Your task to perform on an android device: View the shopping cart on ebay. Search for razer blackwidow on ebay, select the first entry, add it to the cart, then select checkout. Image 0: 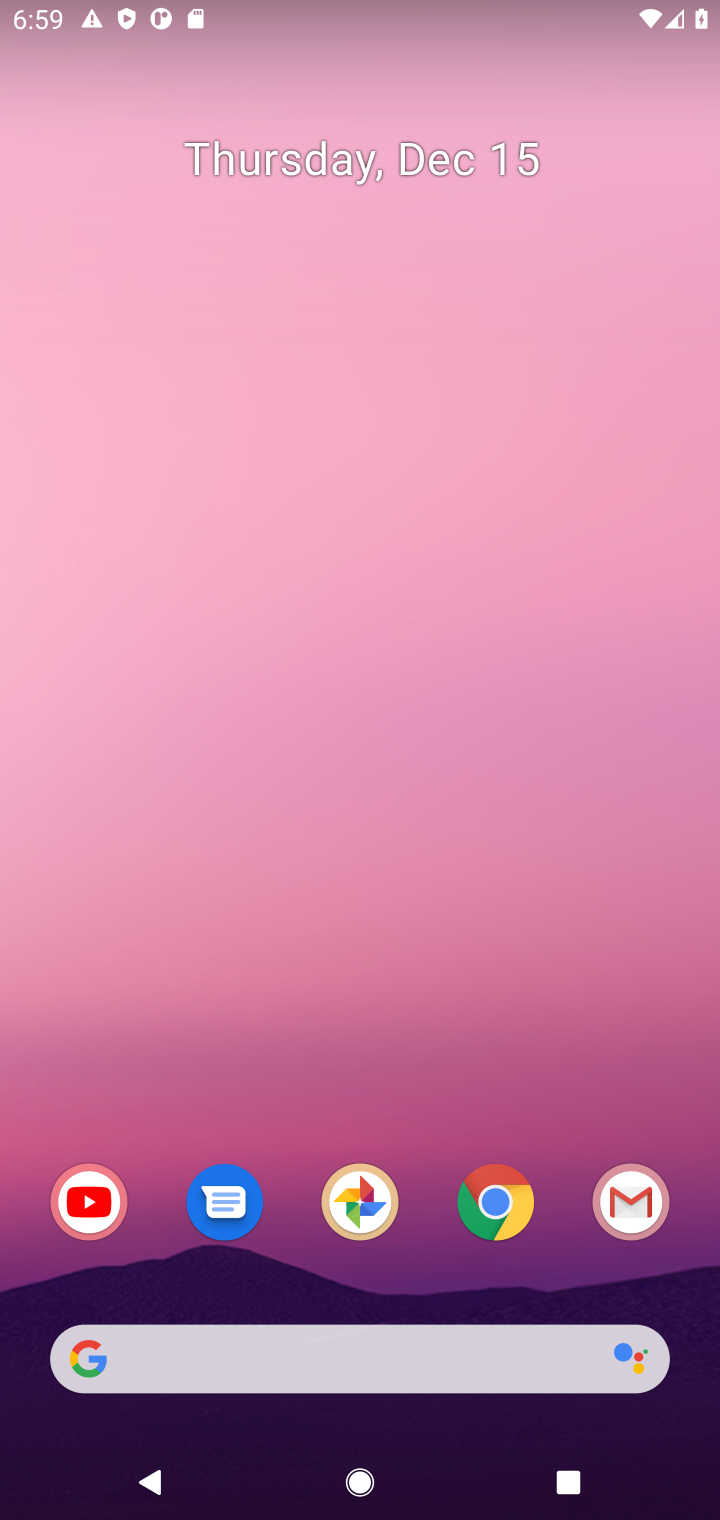
Step 0: click (501, 1198)
Your task to perform on an android device: View the shopping cart on ebay. Search for razer blackwidow on ebay, select the first entry, add it to the cart, then select checkout. Image 1: 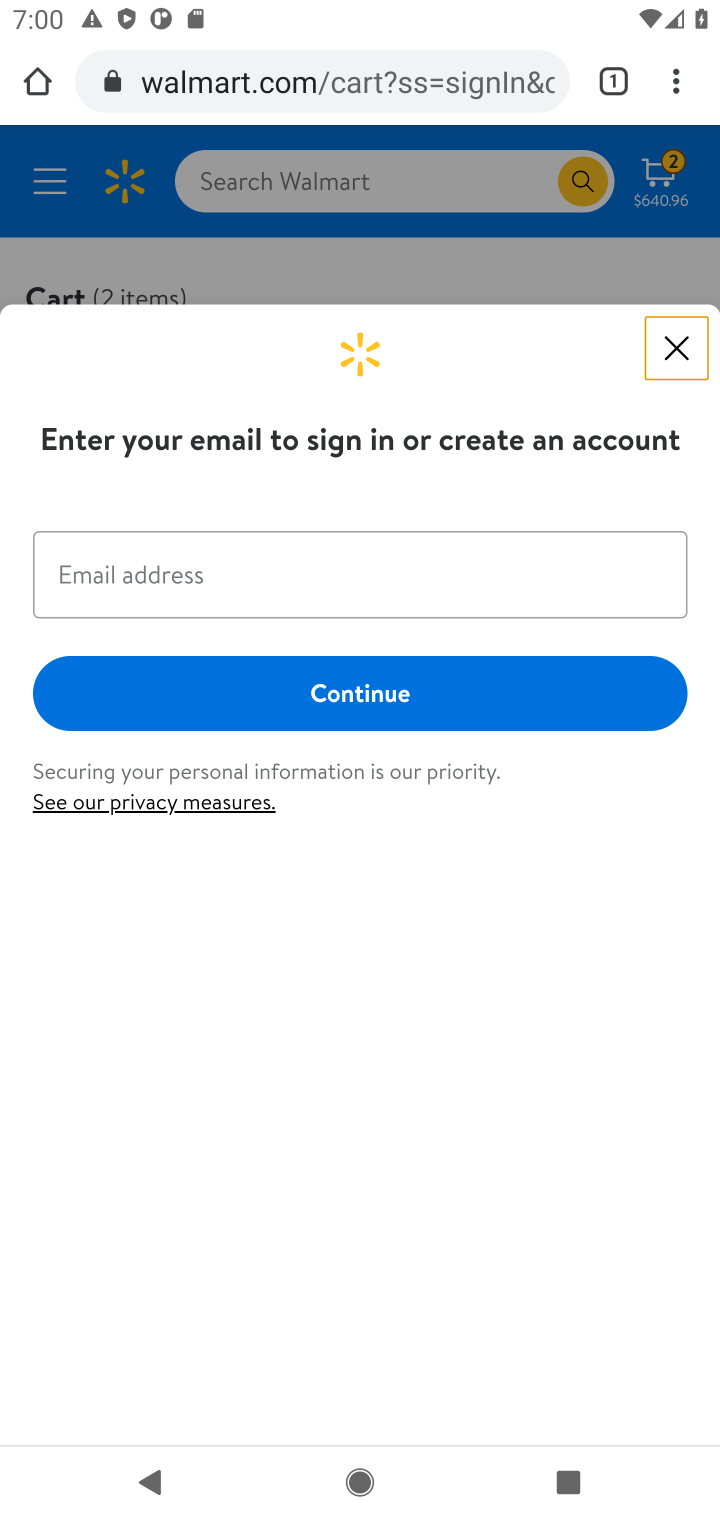
Step 1: click (245, 91)
Your task to perform on an android device: View the shopping cart on ebay. Search for razer blackwidow on ebay, select the first entry, add it to the cart, then select checkout. Image 2: 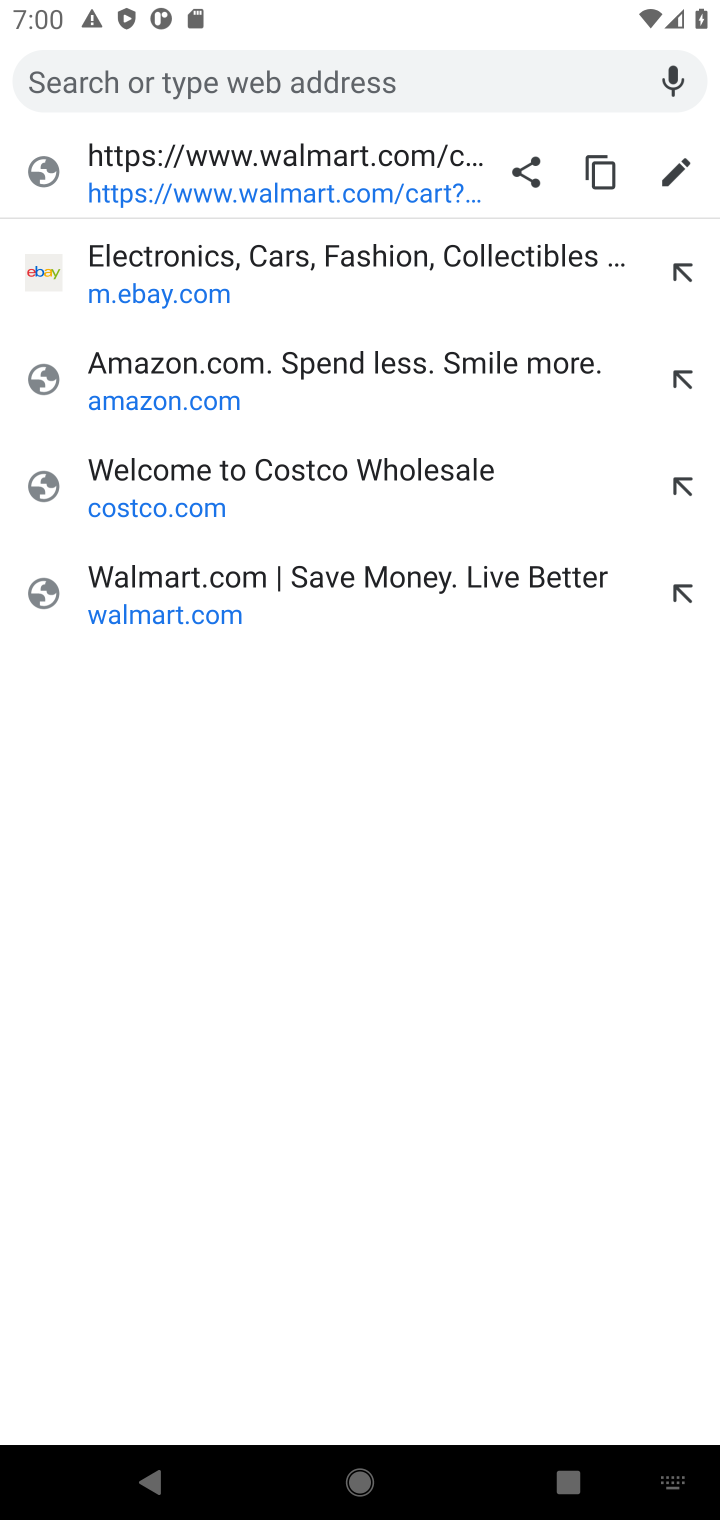
Step 2: click (169, 295)
Your task to perform on an android device: View the shopping cart on ebay. Search for razer blackwidow on ebay, select the first entry, add it to the cart, then select checkout. Image 3: 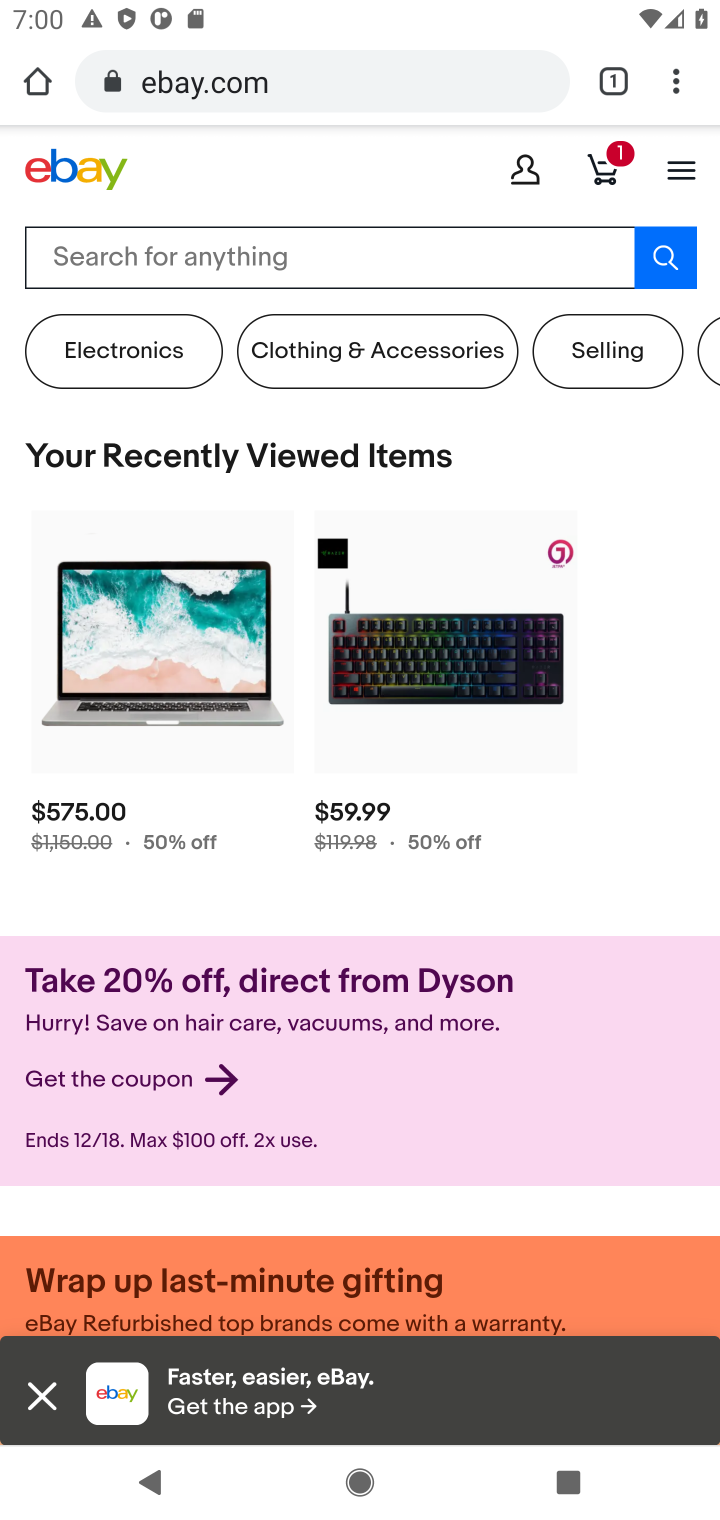
Step 3: click (603, 171)
Your task to perform on an android device: View the shopping cart on ebay. Search for razer blackwidow on ebay, select the first entry, add it to the cart, then select checkout. Image 4: 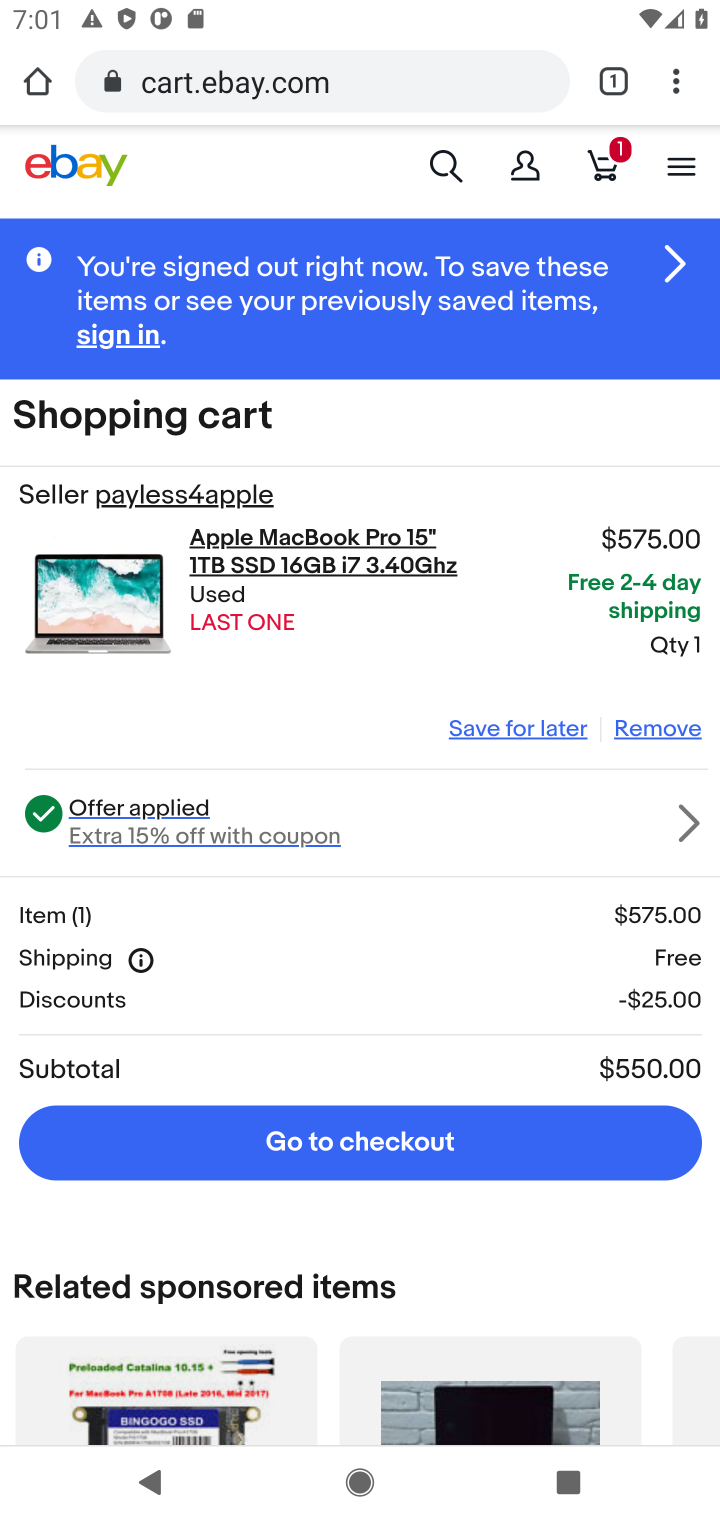
Step 4: click (433, 163)
Your task to perform on an android device: View the shopping cart on ebay. Search for razer blackwidow on ebay, select the first entry, add it to the cart, then select checkout. Image 5: 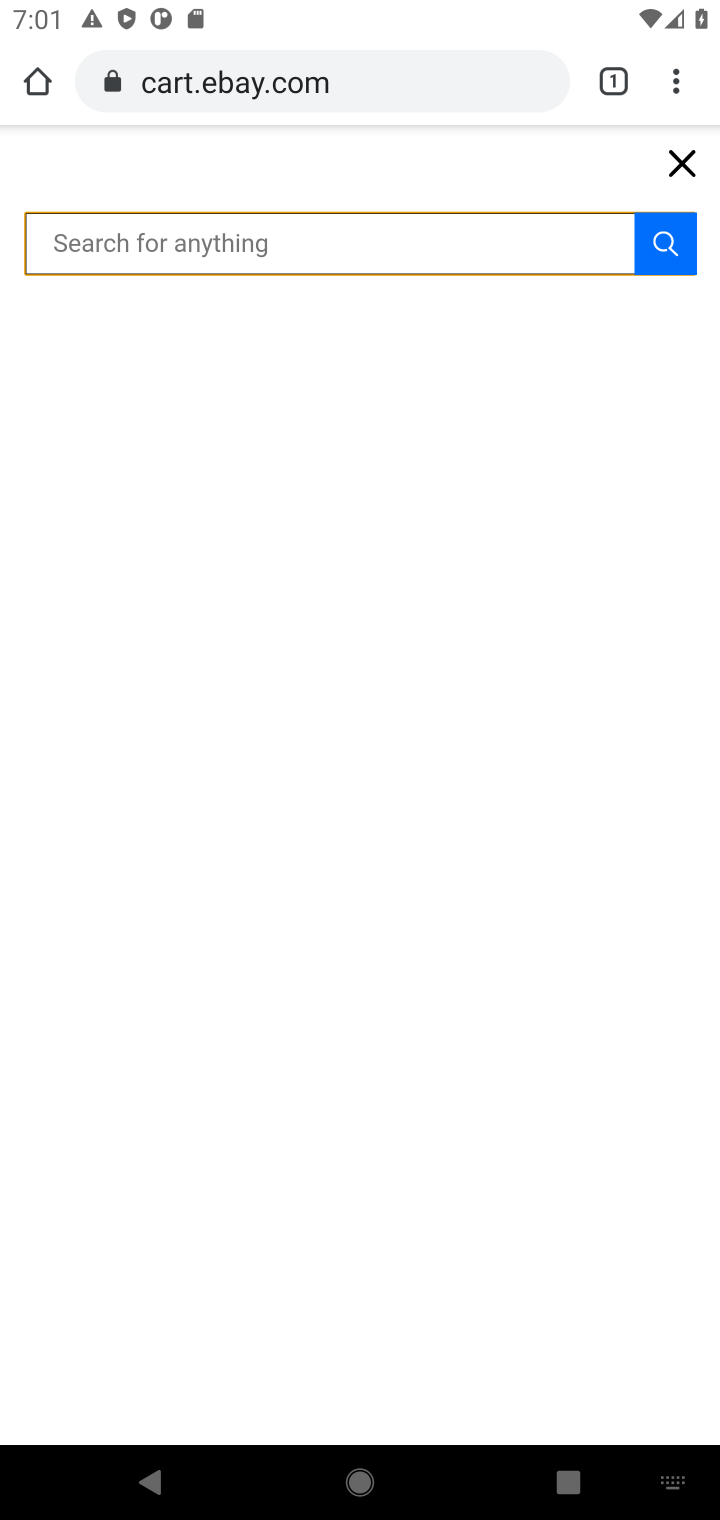
Step 5: type "razer blackwidow"
Your task to perform on an android device: View the shopping cart on ebay. Search for razer blackwidow on ebay, select the first entry, add it to the cart, then select checkout. Image 6: 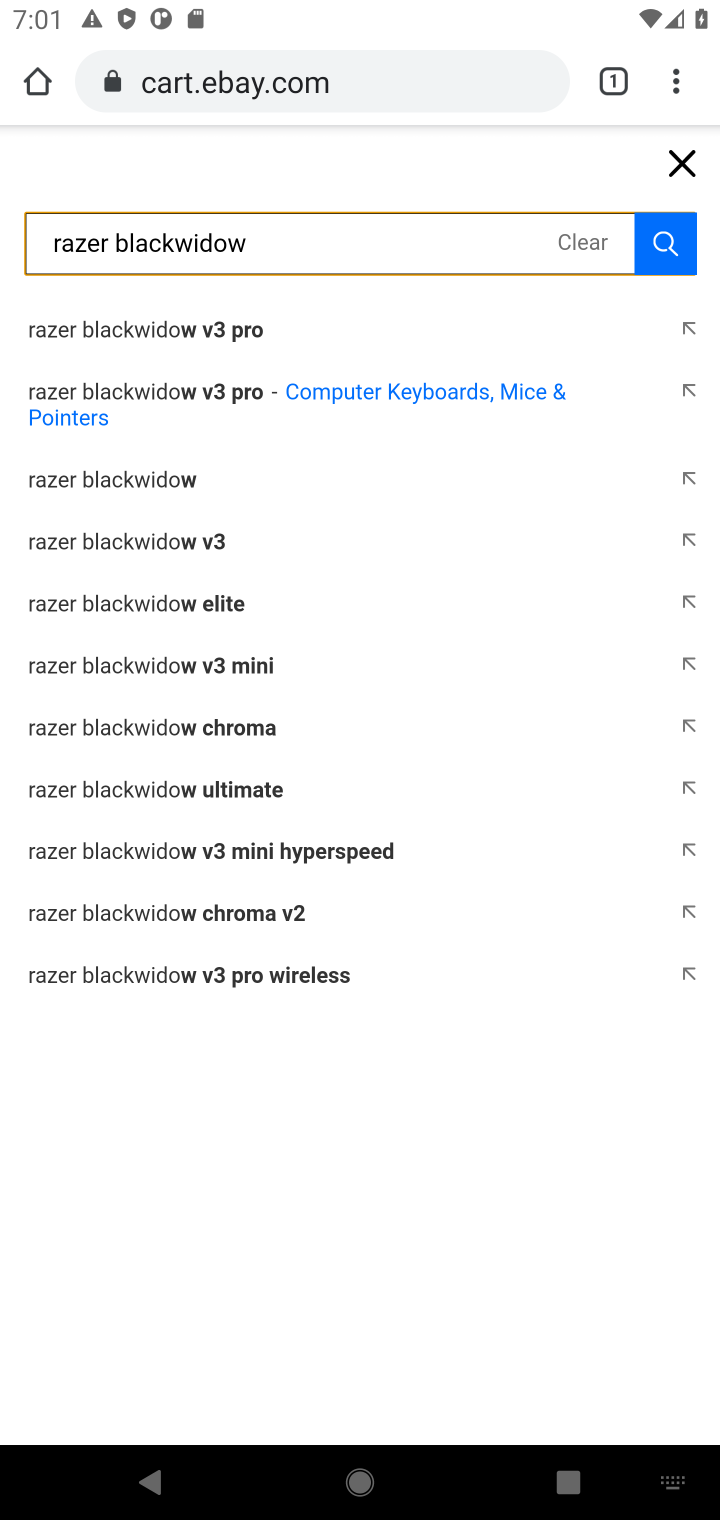
Step 6: click (178, 493)
Your task to perform on an android device: View the shopping cart on ebay. Search for razer blackwidow on ebay, select the first entry, add it to the cart, then select checkout. Image 7: 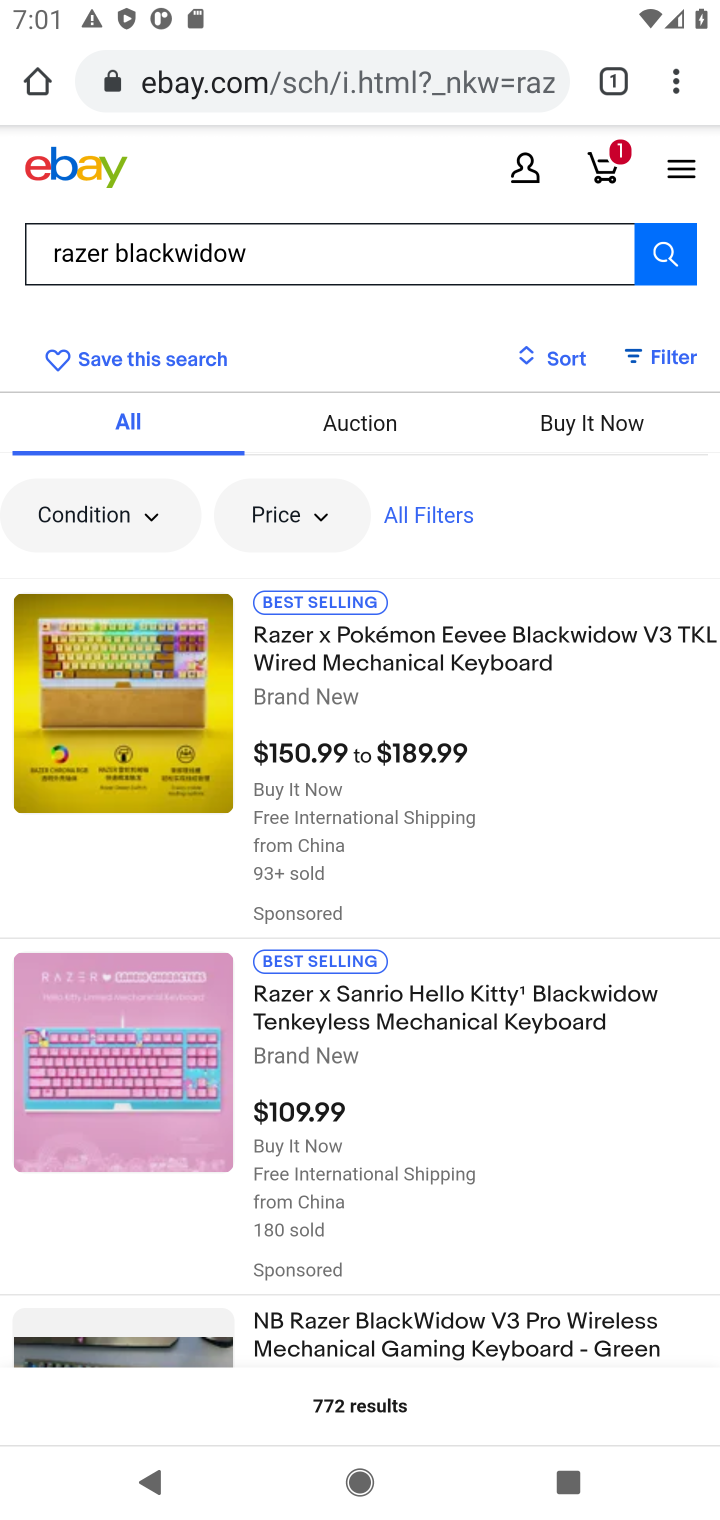
Step 7: click (326, 667)
Your task to perform on an android device: View the shopping cart on ebay. Search for razer blackwidow on ebay, select the first entry, add it to the cart, then select checkout. Image 8: 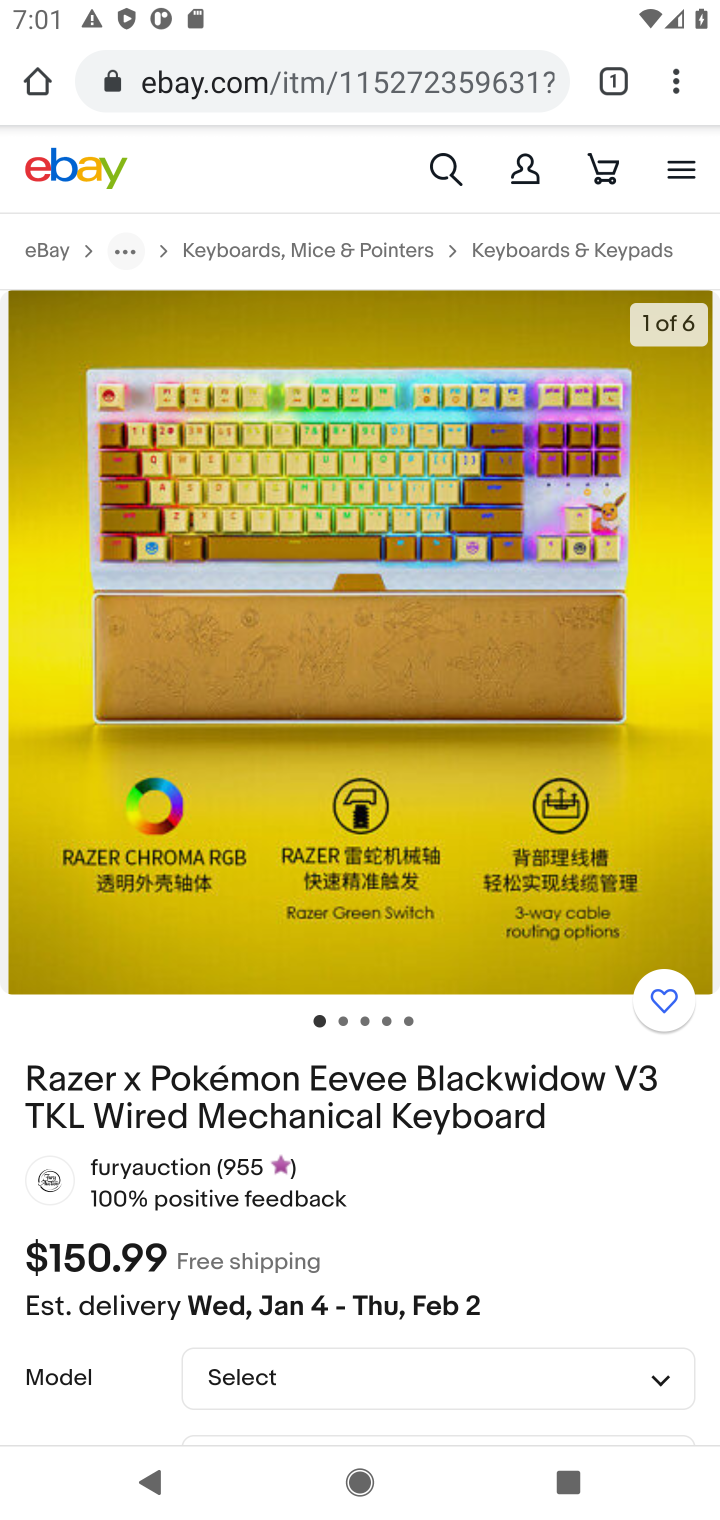
Step 8: drag from (306, 1135) to (315, 643)
Your task to perform on an android device: View the shopping cart on ebay. Search for razer blackwidow on ebay, select the first entry, add it to the cart, then select checkout. Image 9: 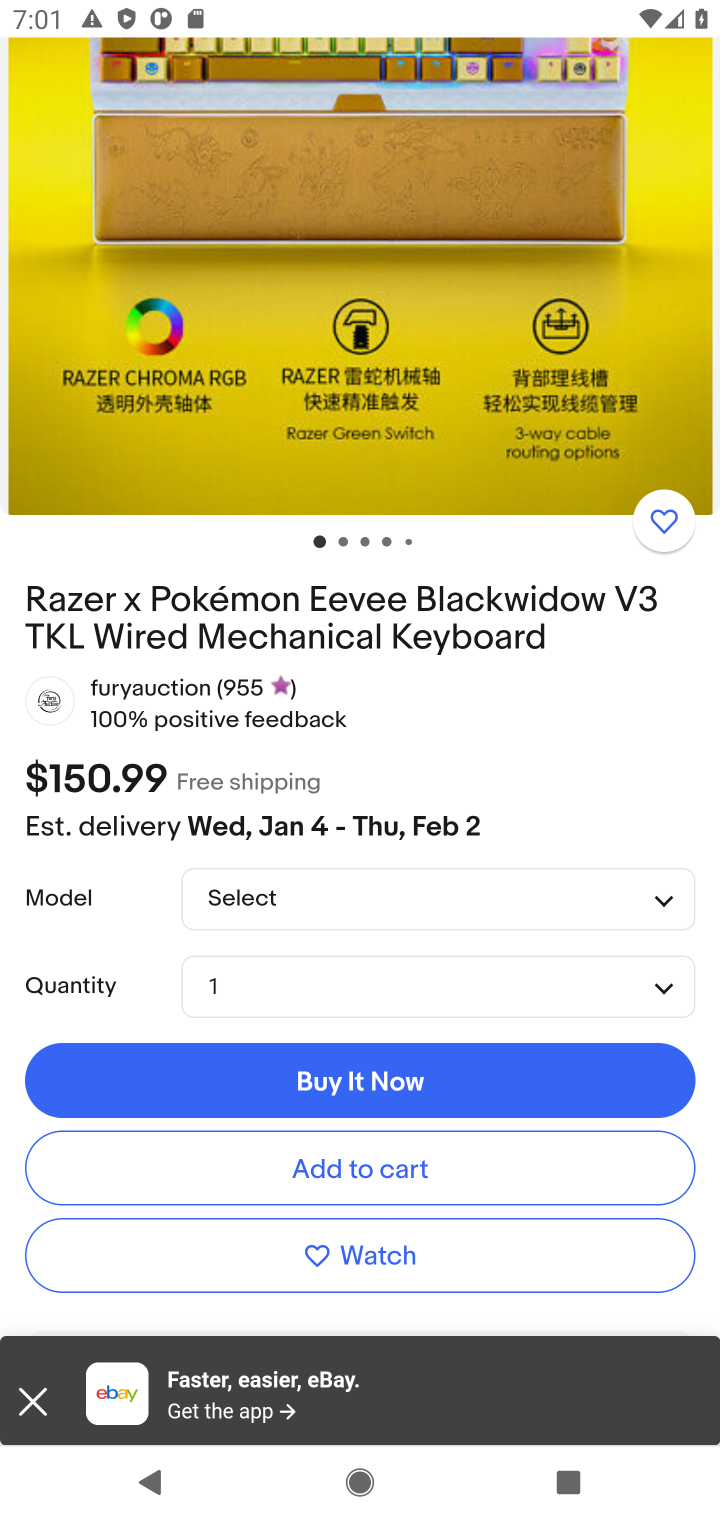
Step 9: click (357, 1163)
Your task to perform on an android device: View the shopping cart on ebay. Search for razer blackwidow on ebay, select the first entry, add it to the cart, then select checkout. Image 10: 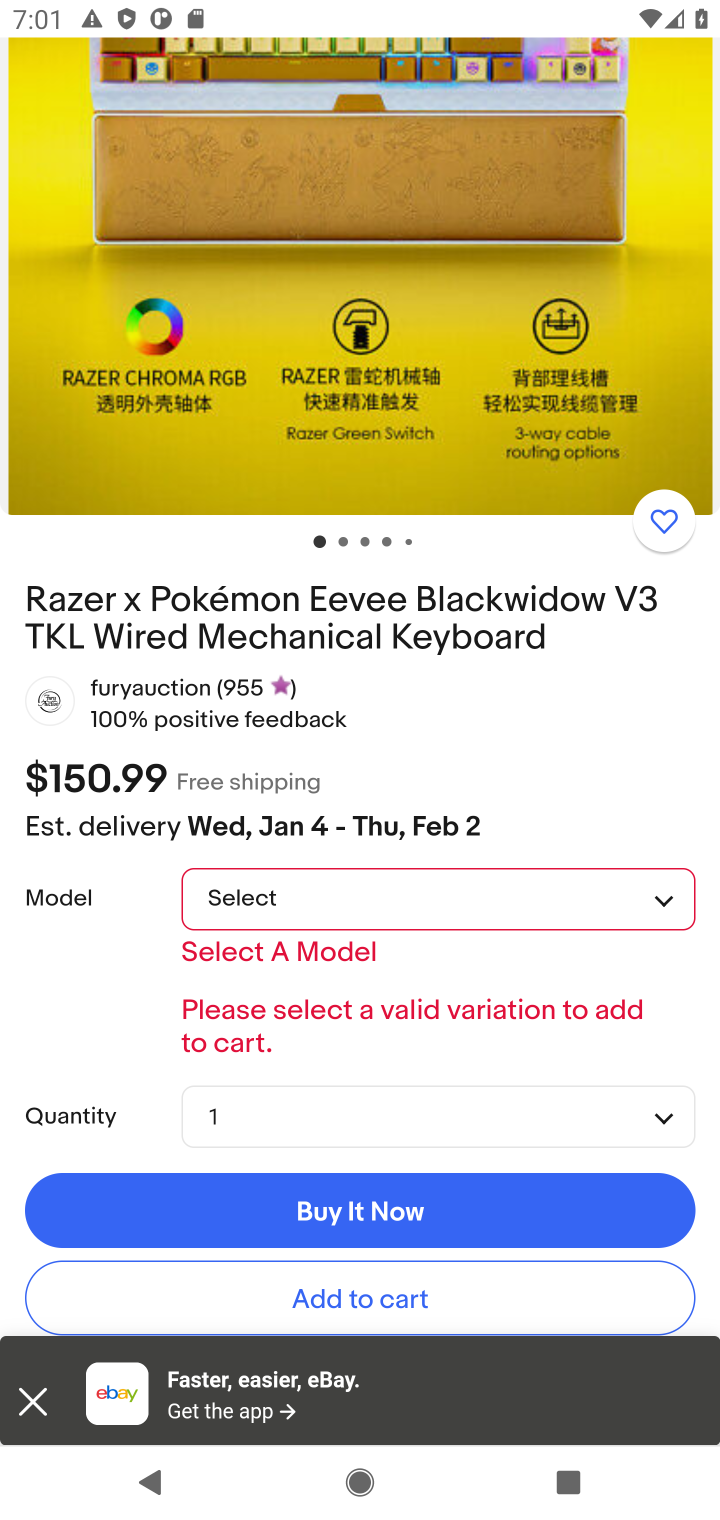
Step 10: click (660, 906)
Your task to perform on an android device: View the shopping cart on ebay. Search for razer blackwidow on ebay, select the first entry, add it to the cart, then select checkout. Image 11: 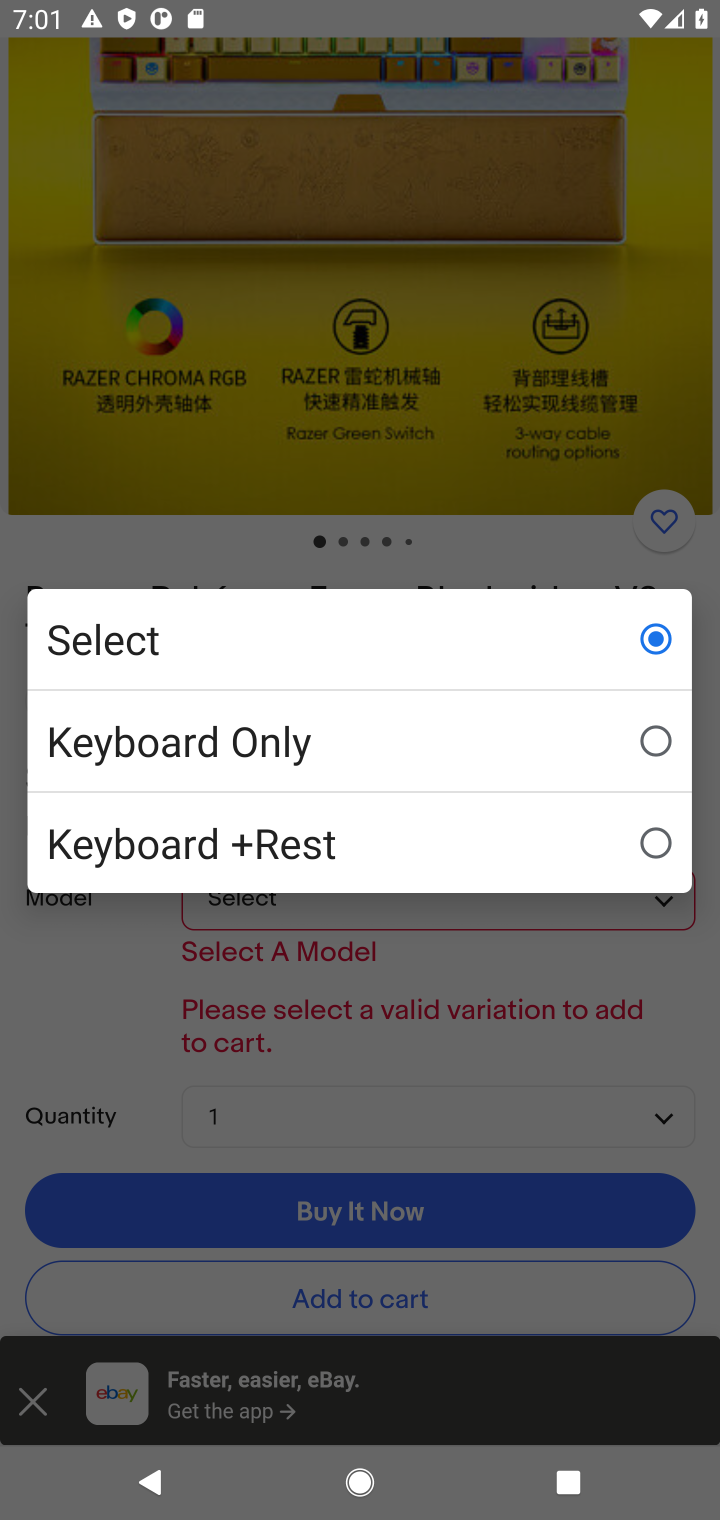
Step 11: click (153, 763)
Your task to perform on an android device: View the shopping cart on ebay. Search for razer blackwidow on ebay, select the first entry, add it to the cart, then select checkout. Image 12: 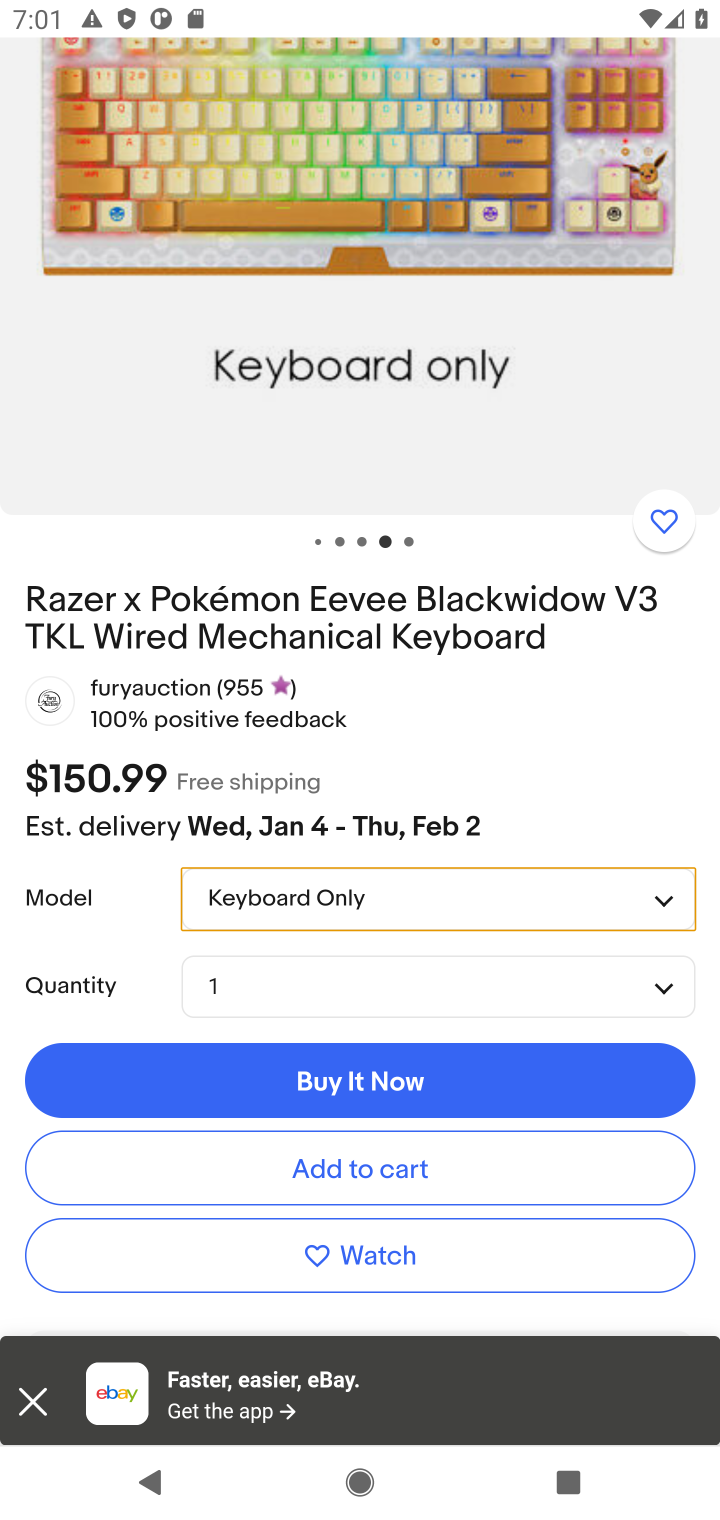
Step 12: click (338, 1173)
Your task to perform on an android device: View the shopping cart on ebay. Search for razer blackwidow on ebay, select the first entry, add it to the cart, then select checkout. Image 13: 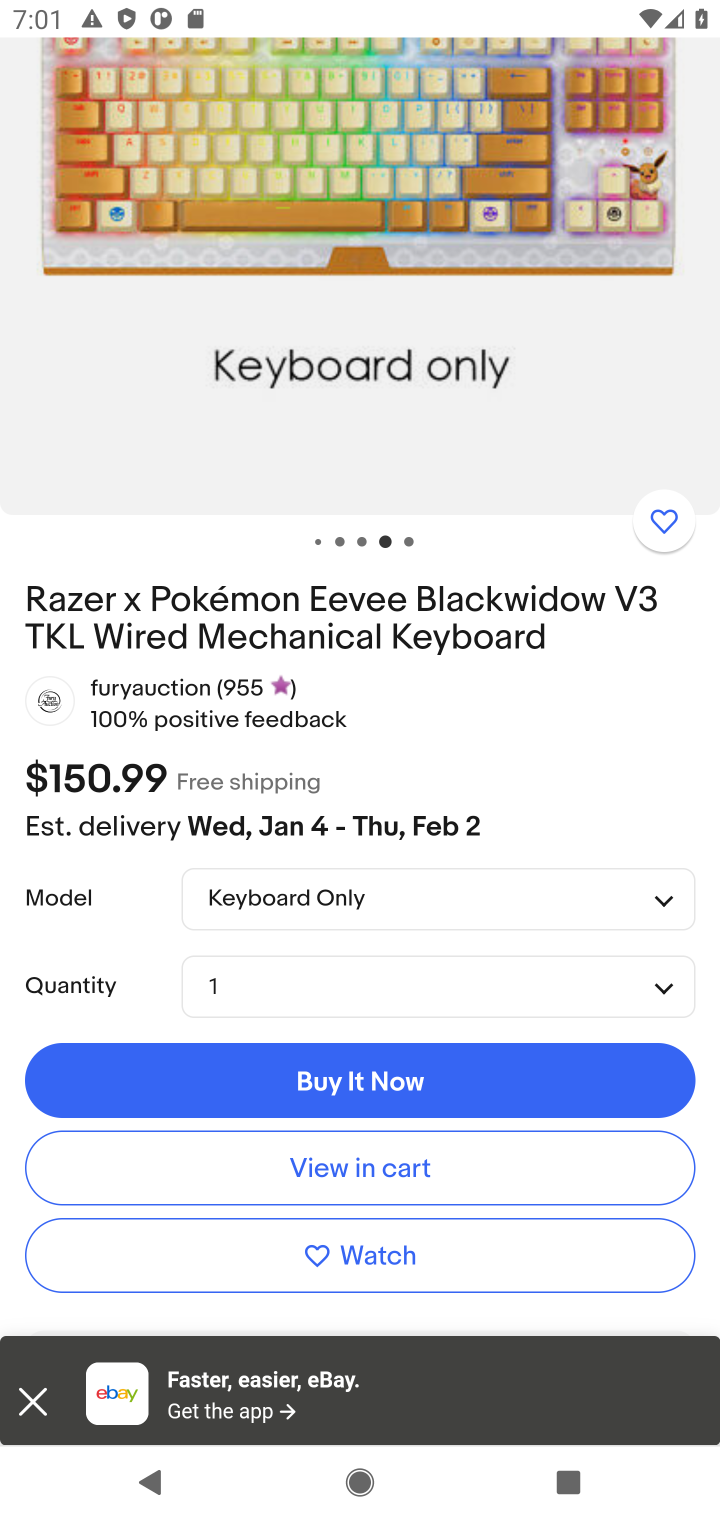
Step 13: click (338, 1173)
Your task to perform on an android device: View the shopping cart on ebay. Search for razer blackwidow on ebay, select the first entry, add it to the cart, then select checkout. Image 14: 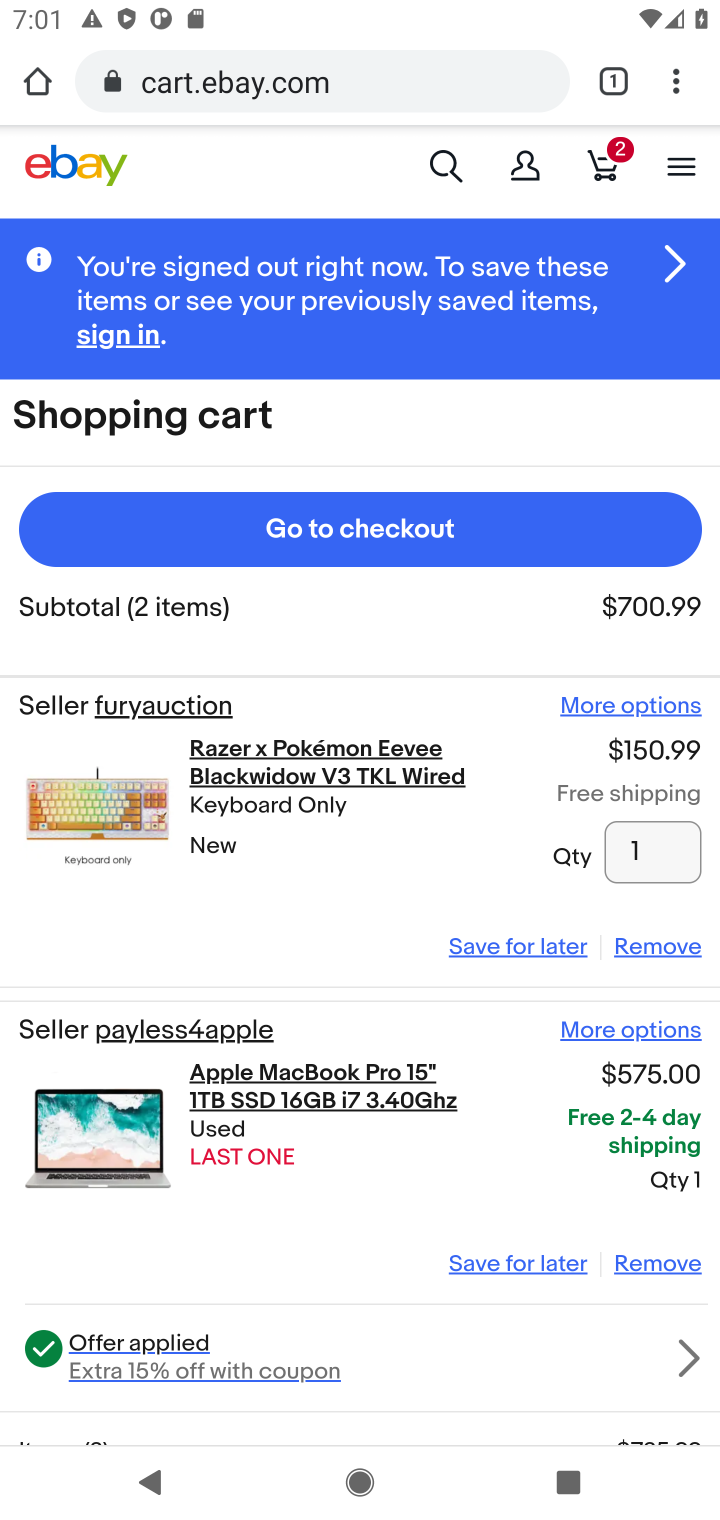
Step 14: click (329, 540)
Your task to perform on an android device: View the shopping cart on ebay. Search for razer blackwidow on ebay, select the first entry, add it to the cart, then select checkout. Image 15: 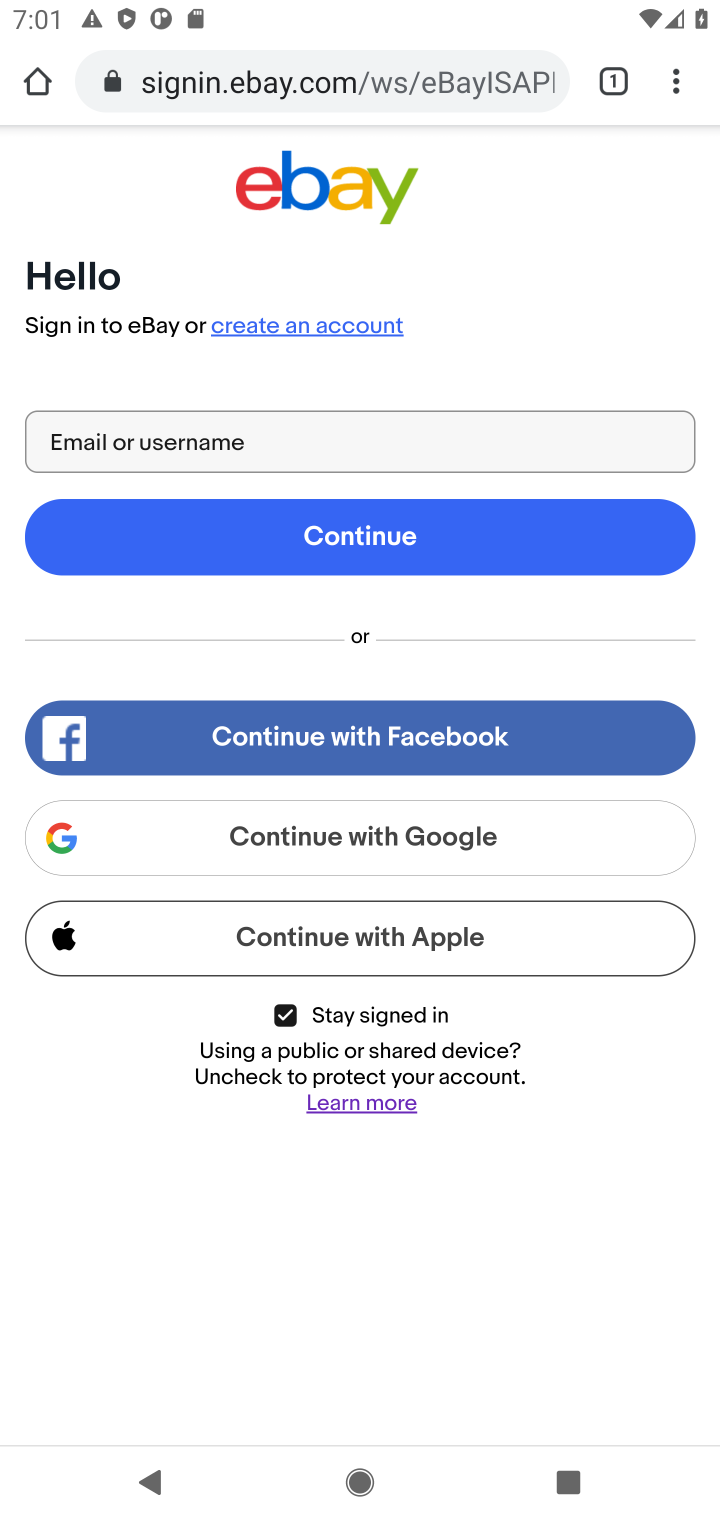
Step 15: task complete